Your task to perform on an android device: check battery use Image 0: 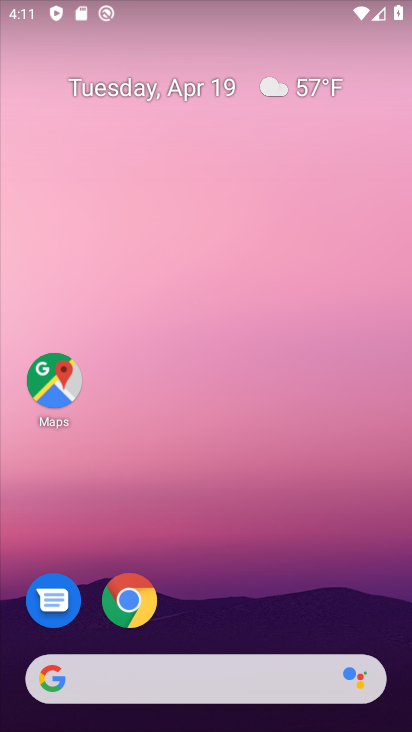
Step 0: drag from (238, 456) to (221, 19)
Your task to perform on an android device: check battery use Image 1: 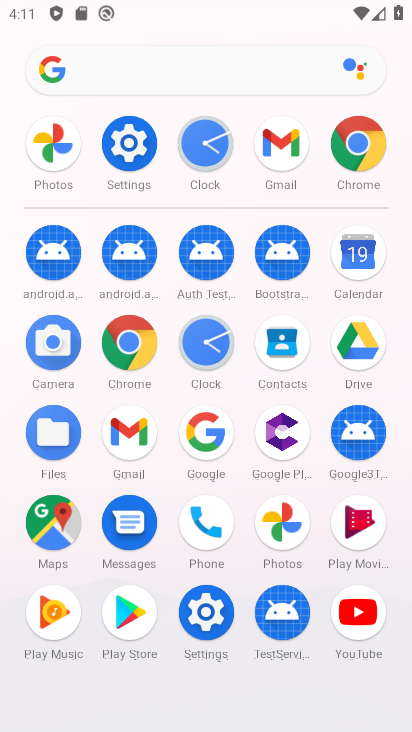
Step 1: click (154, 159)
Your task to perform on an android device: check battery use Image 2: 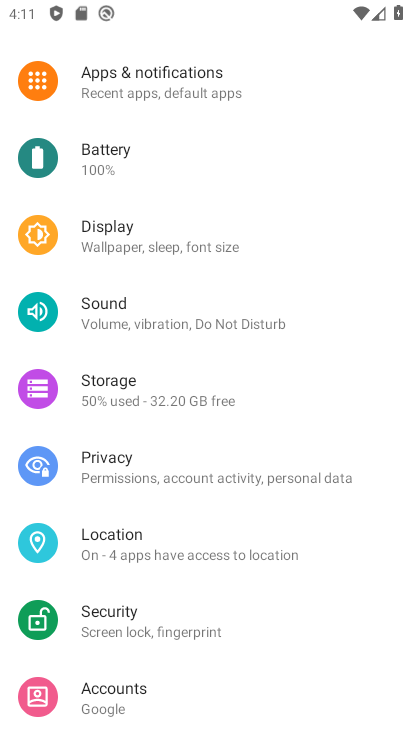
Step 2: click (191, 153)
Your task to perform on an android device: check battery use Image 3: 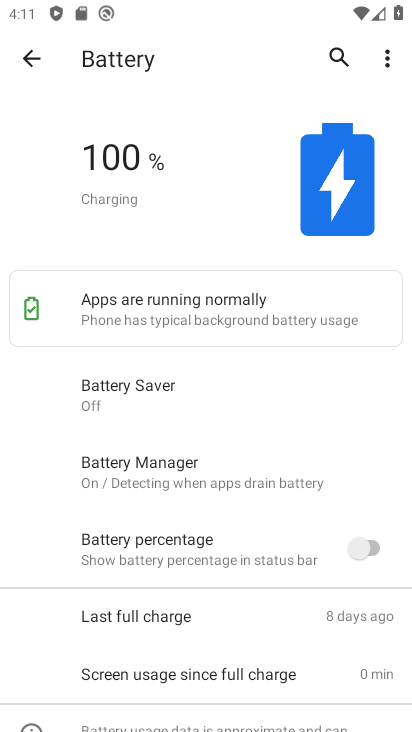
Step 3: click (374, 62)
Your task to perform on an android device: check battery use Image 4: 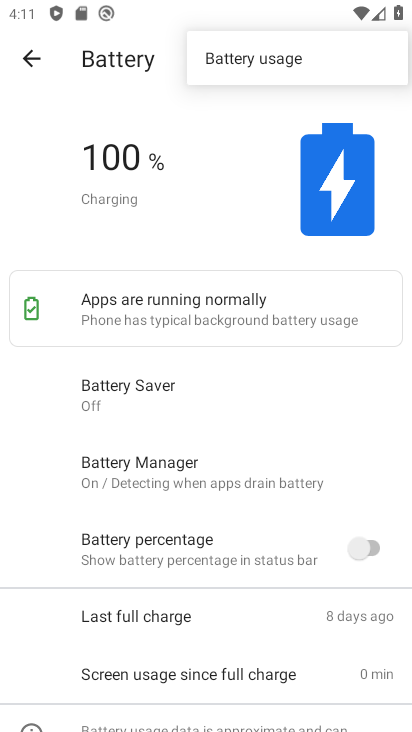
Step 4: click (277, 71)
Your task to perform on an android device: check battery use Image 5: 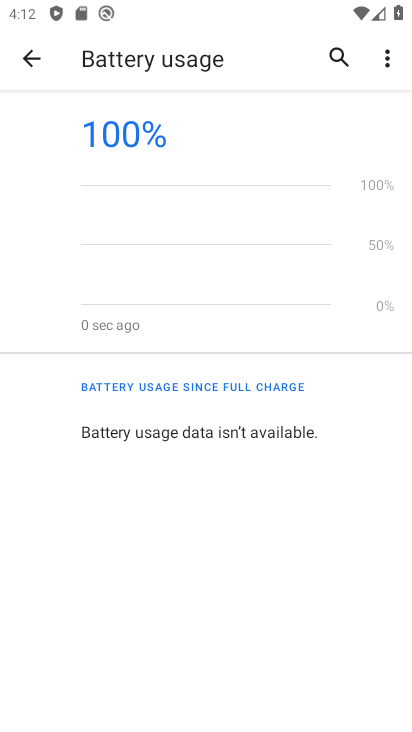
Step 5: task complete